Your task to perform on an android device: Search for "sony triple a" on target.com, select the first entry, and add it to the cart. Image 0: 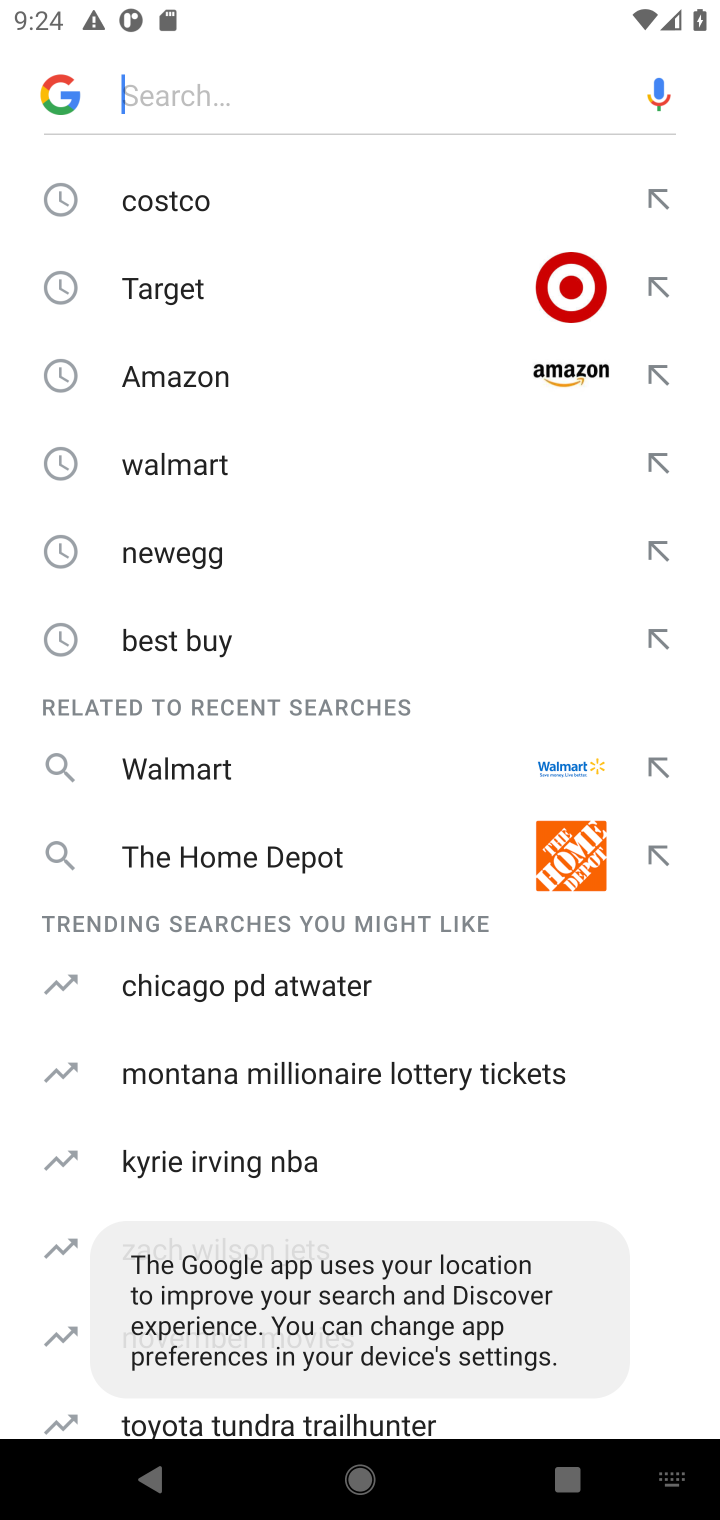
Step 0: press home button
Your task to perform on an android device: Search for "sony triple a" on target.com, select the first entry, and add it to the cart. Image 1: 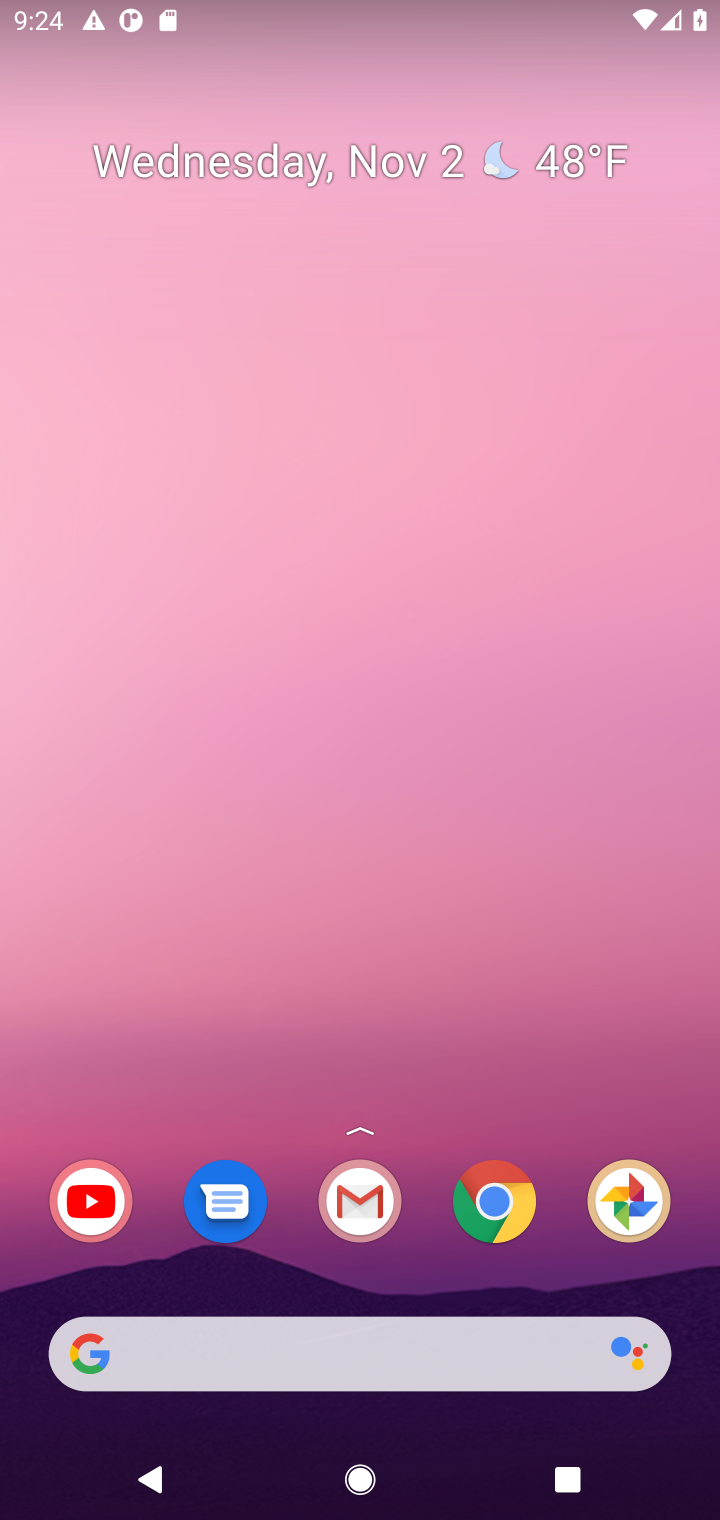
Step 1: drag from (434, 1168) to (409, 214)
Your task to perform on an android device: Search for "sony triple a" on target.com, select the first entry, and add it to the cart. Image 2: 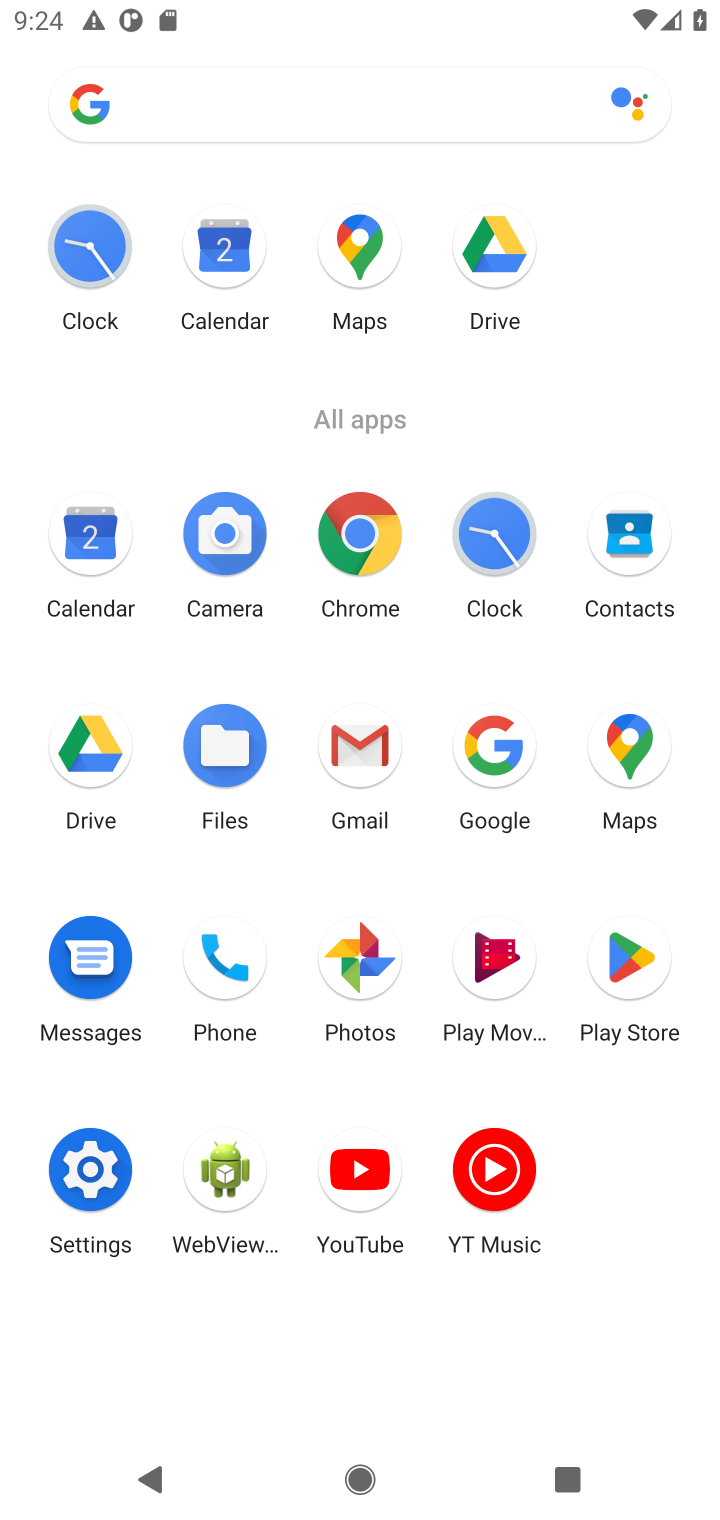
Step 2: click (377, 536)
Your task to perform on an android device: Search for "sony triple a" on target.com, select the first entry, and add it to the cart. Image 3: 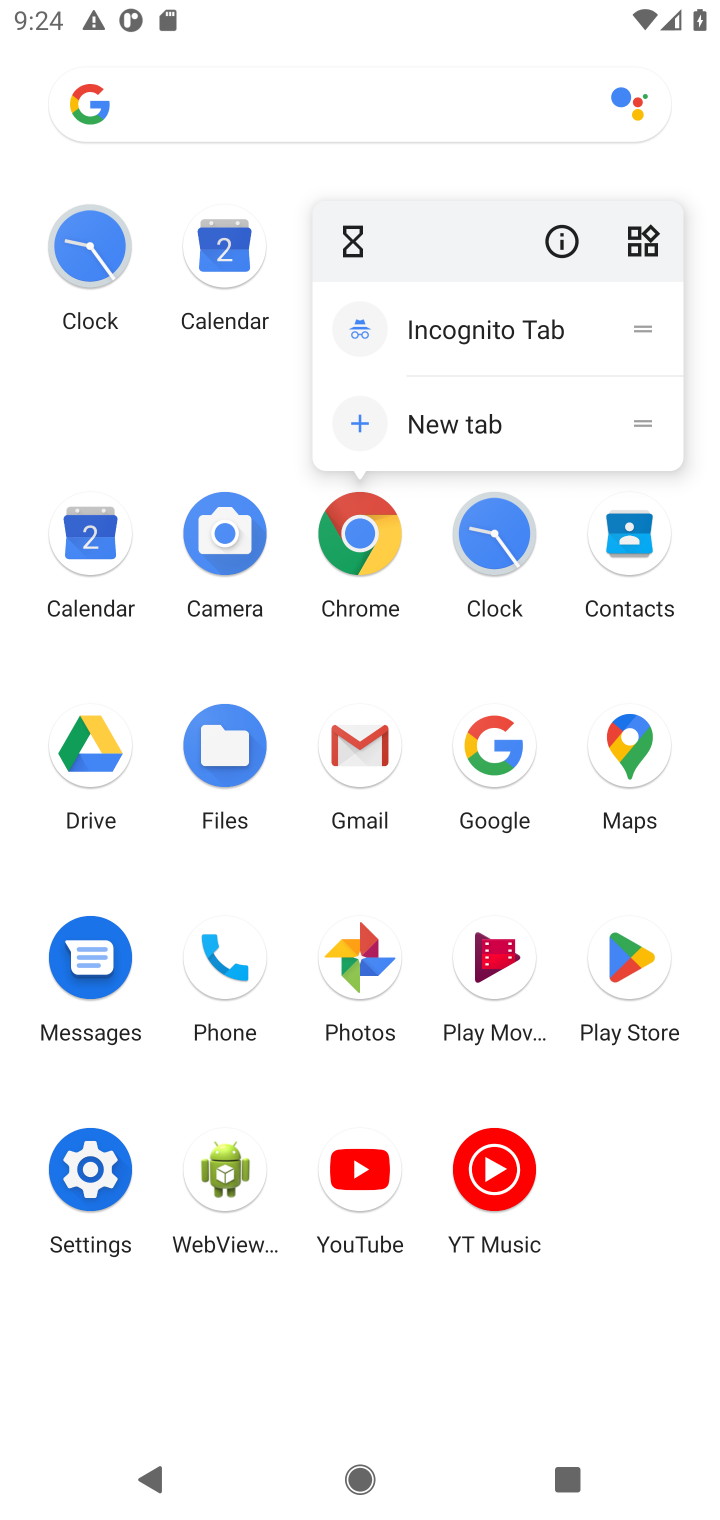
Step 3: click (362, 530)
Your task to perform on an android device: Search for "sony triple a" on target.com, select the first entry, and add it to the cart. Image 4: 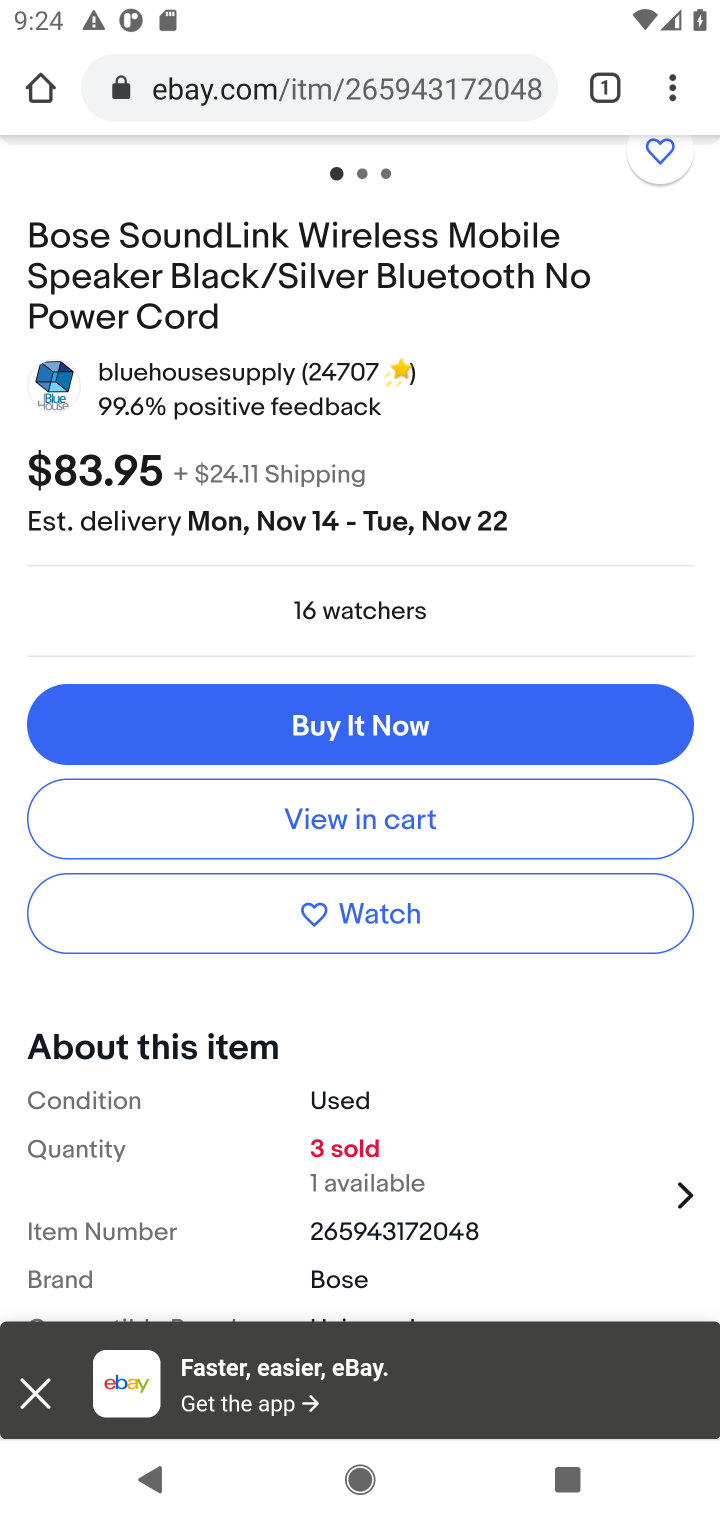
Step 4: click (451, 106)
Your task to perform on an android device: Search for "sony triple a" on target.com, select the first entry, and add it to the cart. Image 5: 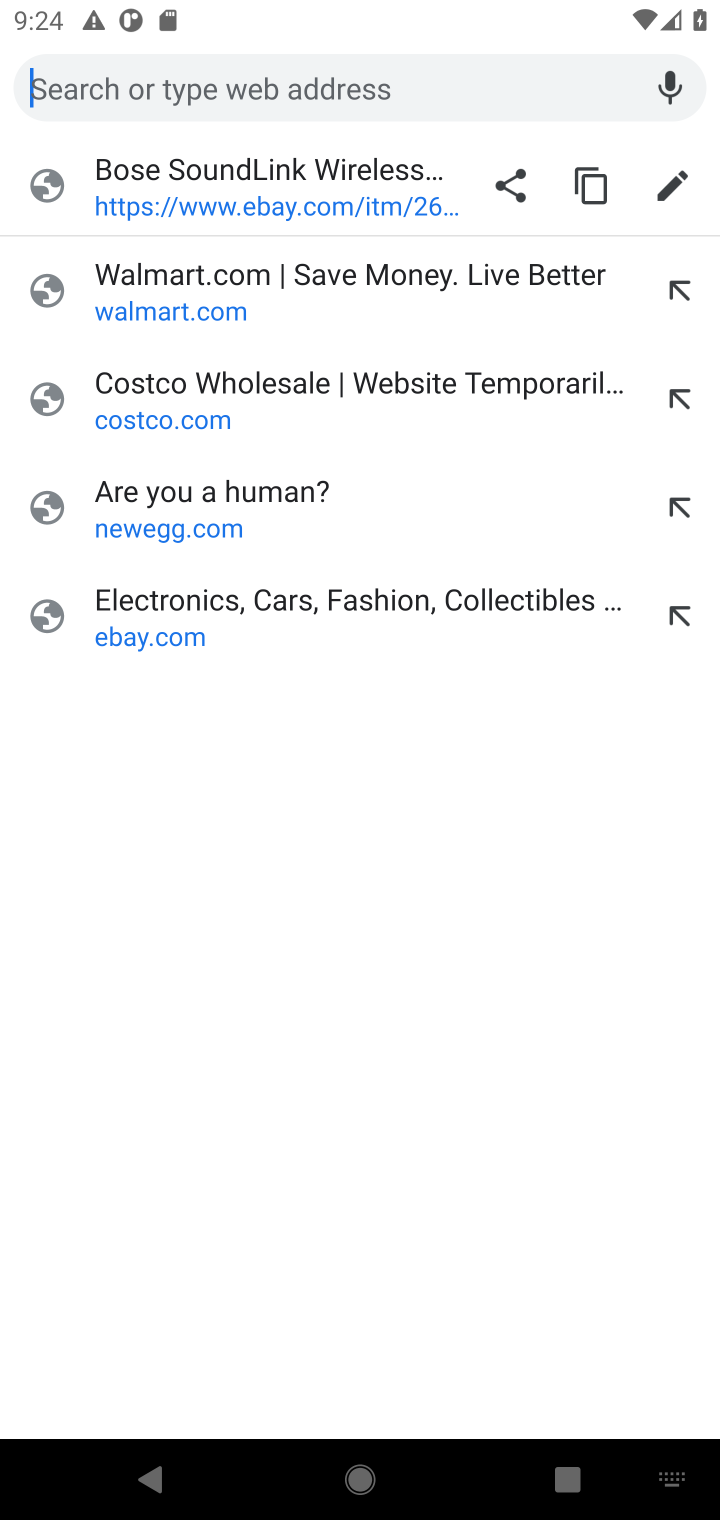
Step 5: click (382, 86)
Your task to perform on an android device: Search for "sony triple a" on target.com, select the first entry, and add it to the cart. Image 6: 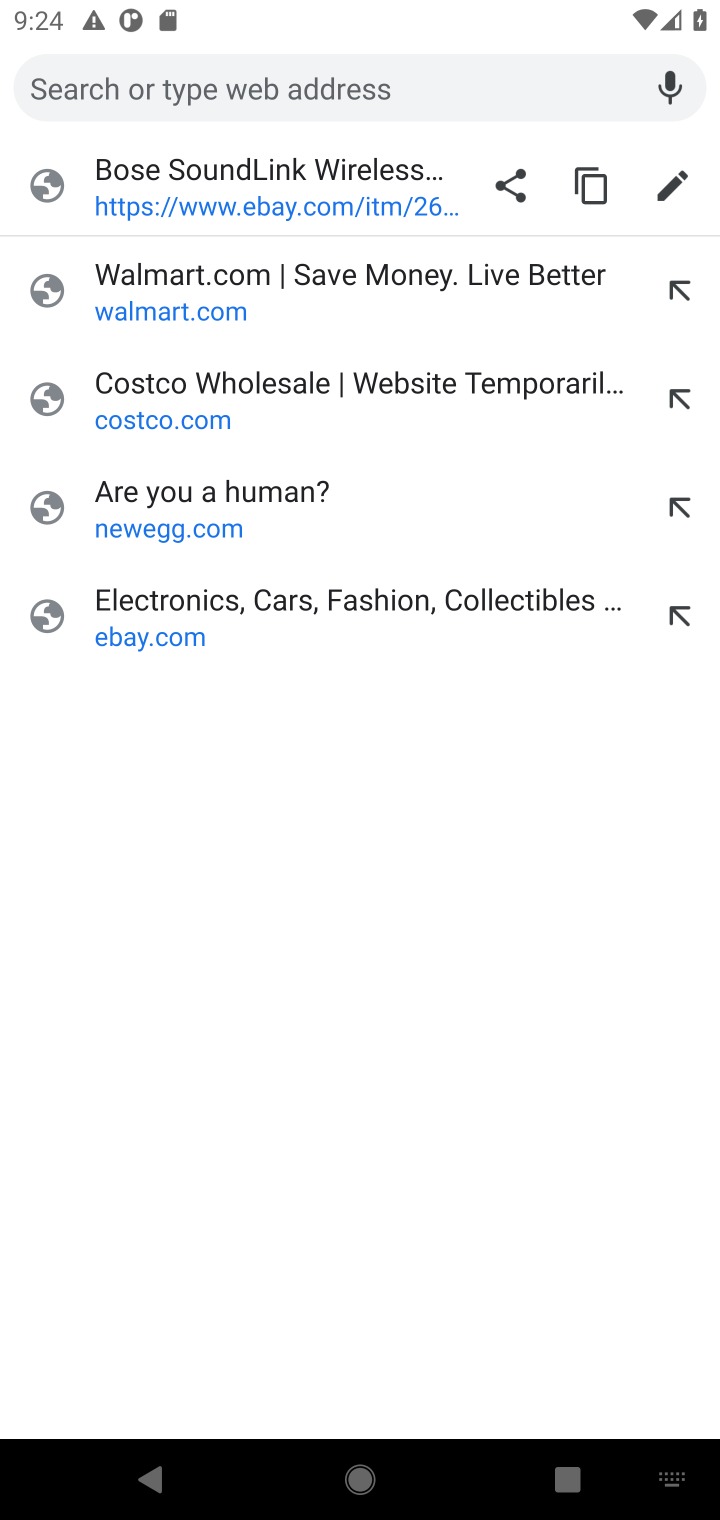
Step 6: type "target.com"
Your task to perform on an android device: Search for "sony triple a" on target.com, select the first entry, and add it to the cart. Image 7: 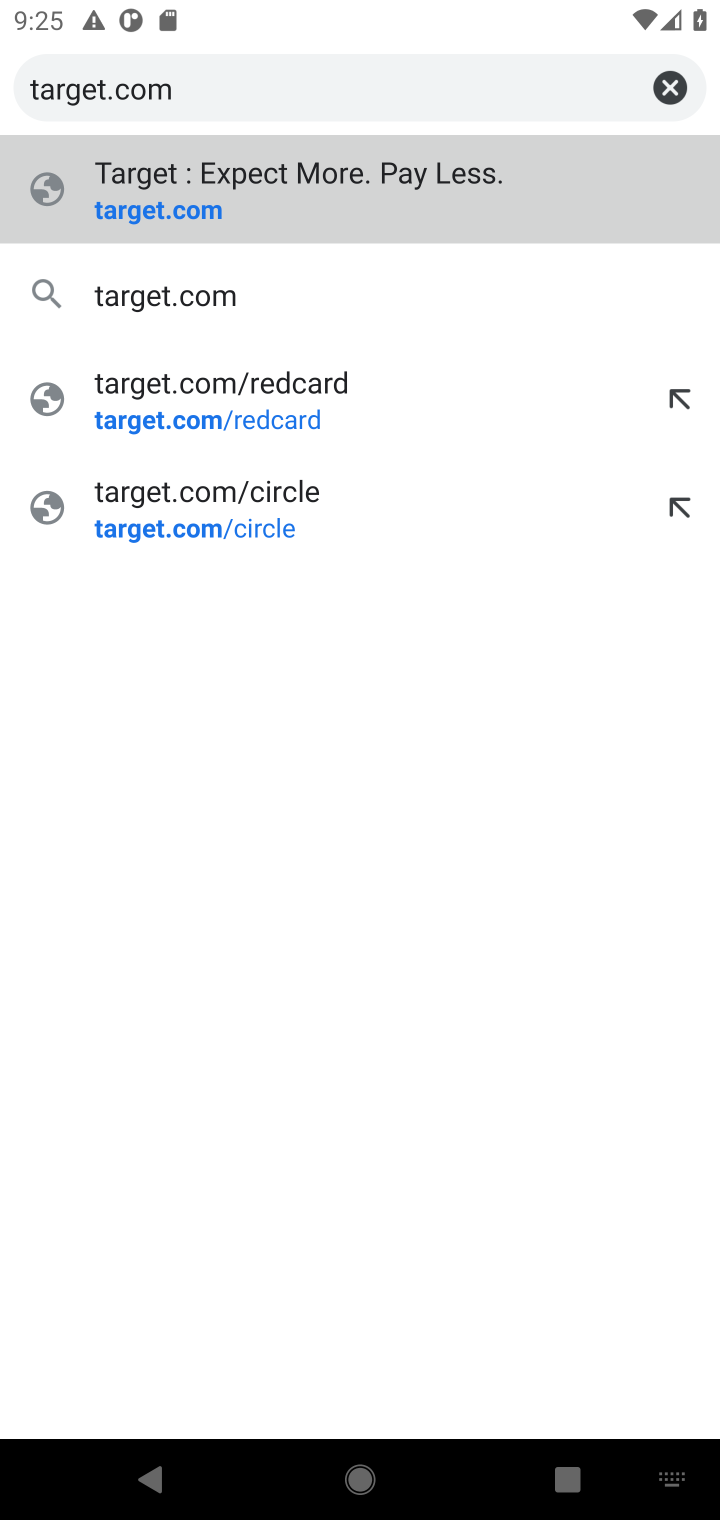
Step 7: press enter
Your task to perform on an android device: Search for "sony triple a" on target.com, select the first entry, and add it to the cart. Image 8: 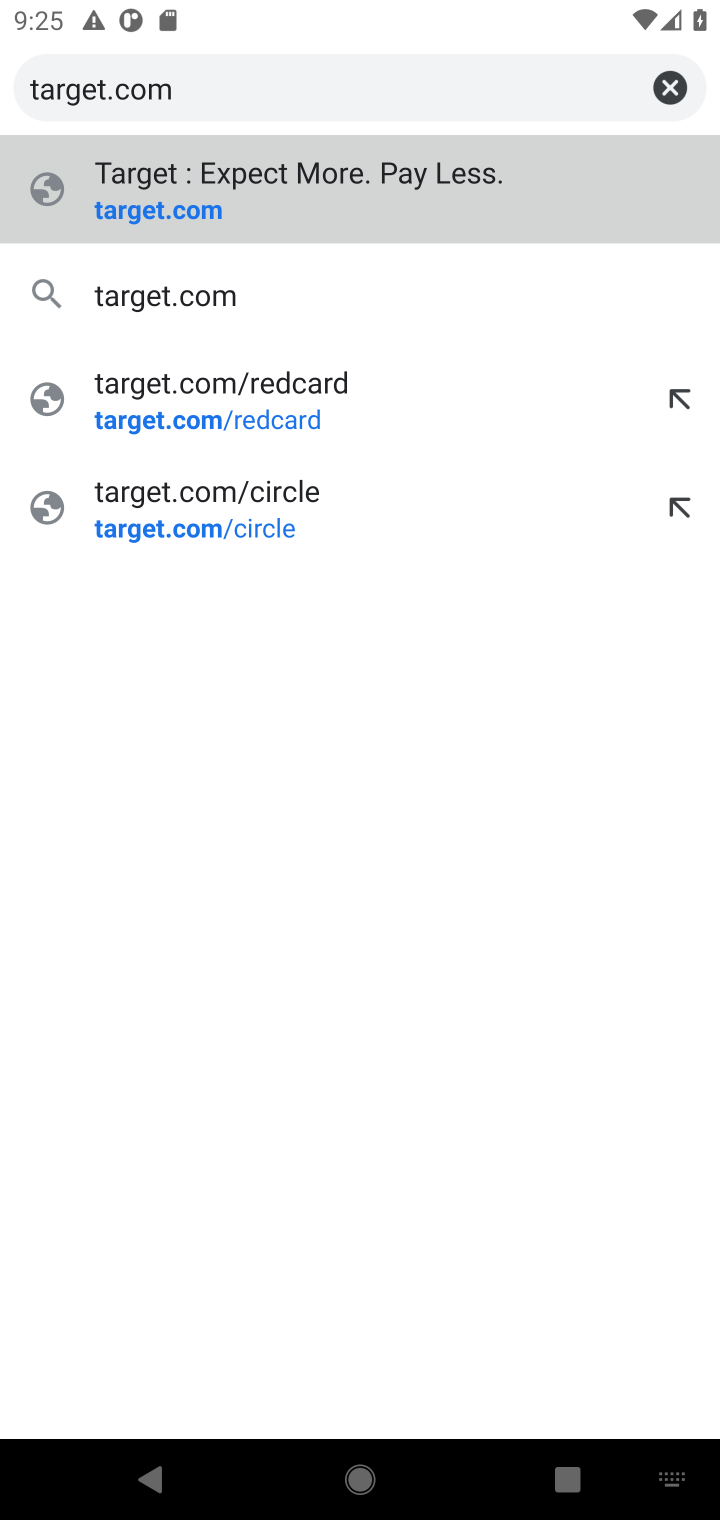
Step 8: drag from (382, 86) to (119, 380)
Your task to perform on an android device: Search for "sony triple a" on target.com, select the first entry, and add it to the cart. Image 9: 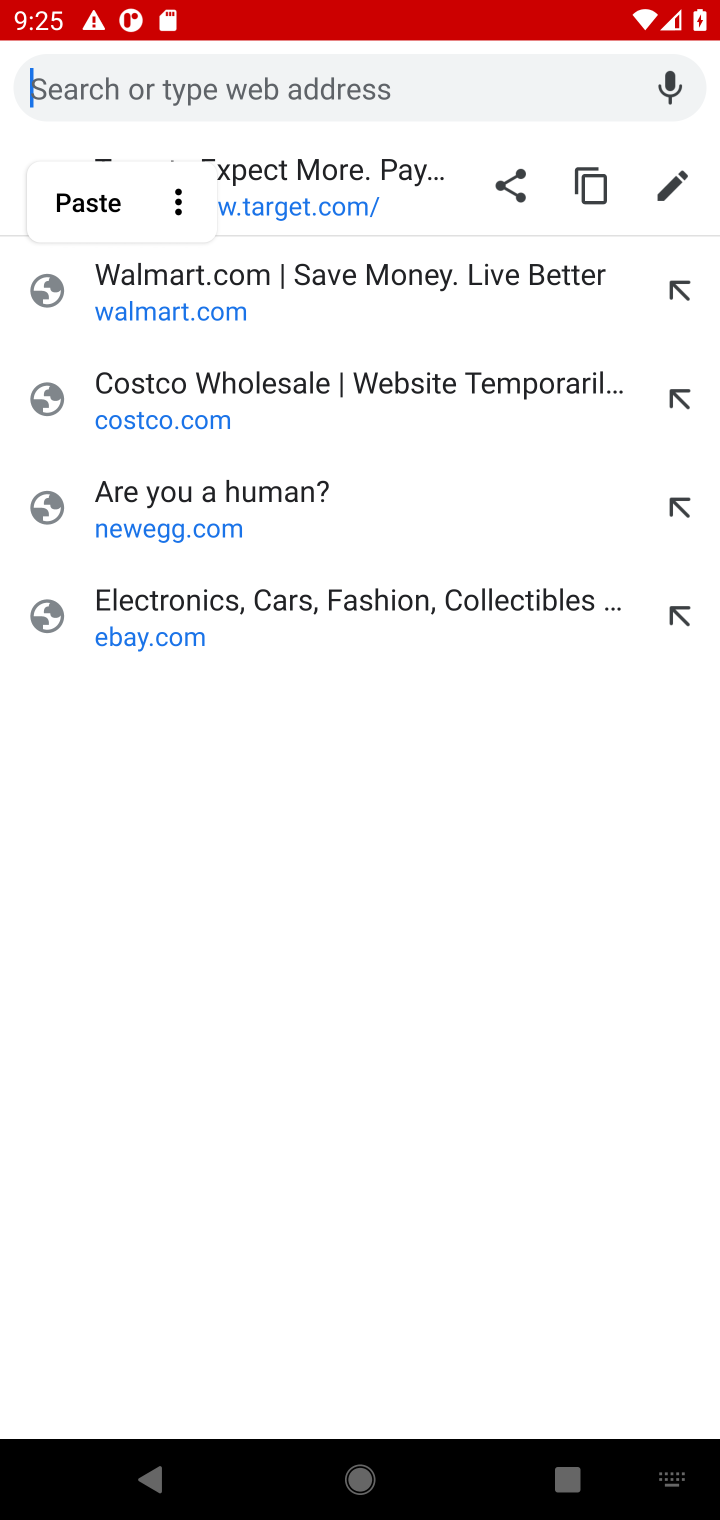
Step 9: click (292, 88)
Your task to perform on an android device: Search for "sony triple a" on target.com, select the first entry, and add it to the cart. Image 10: 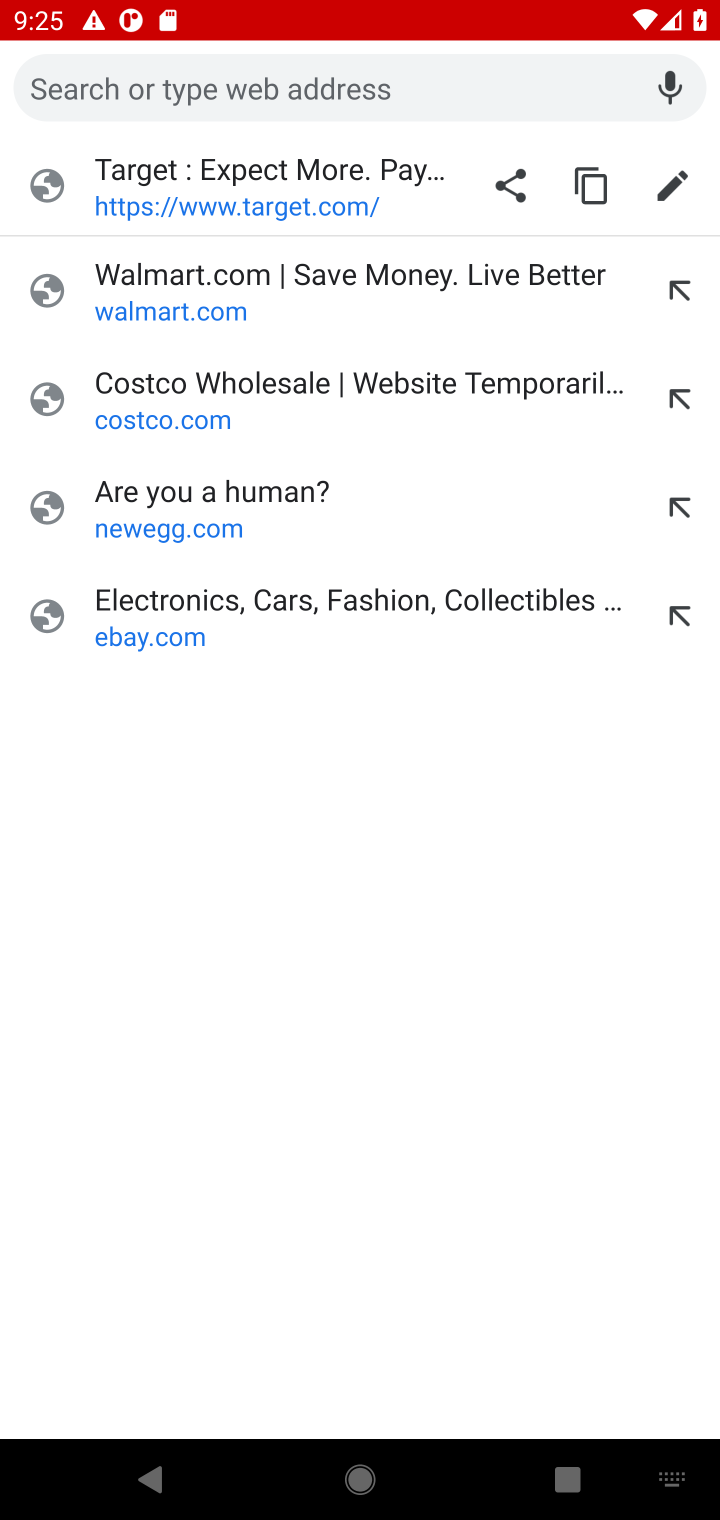
Step 10: type "target.com"
Your task to perform on an android device: Search for "sony triple a" on target.com, select the first entry, and add it to the cart. Image 11: 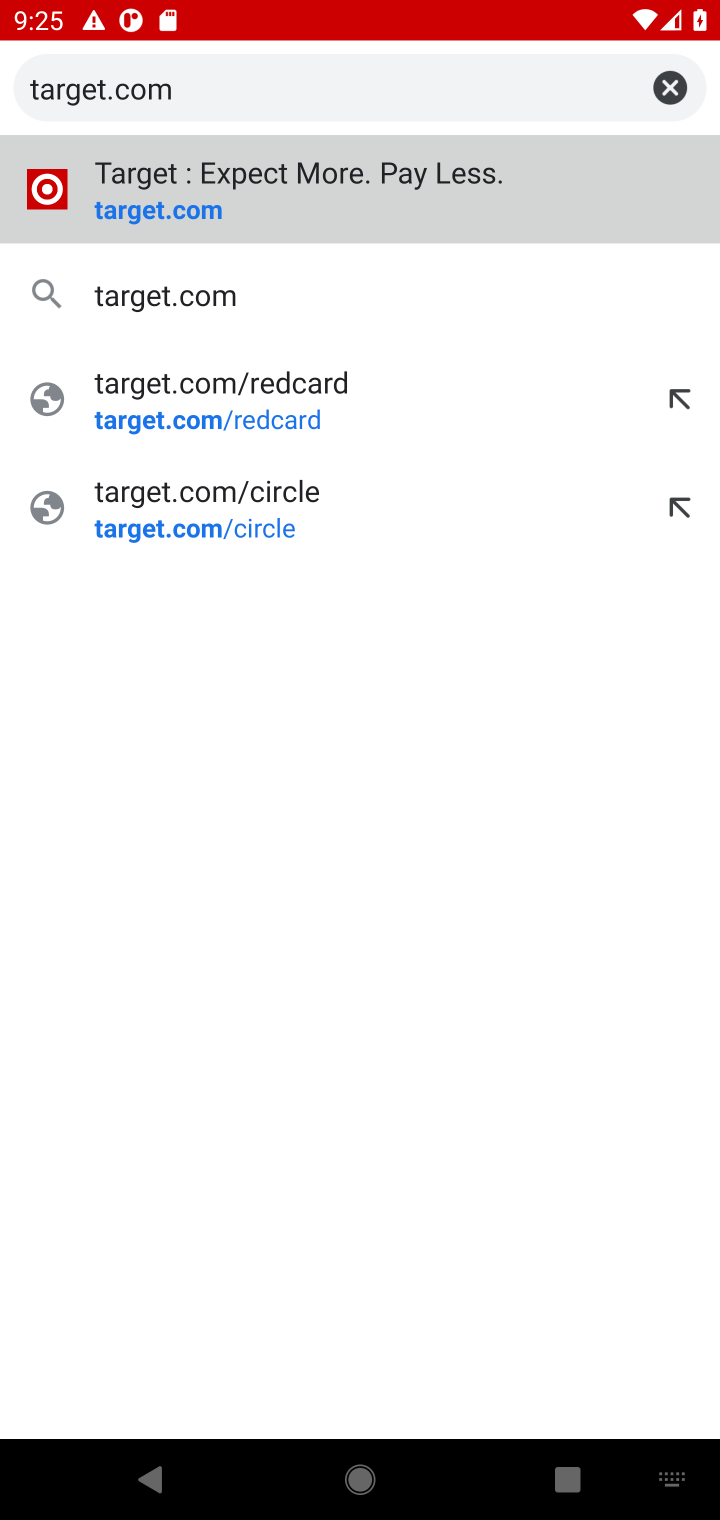
Step 11: press enter
Your task to perform on an android device: Search for "sony triple a" on target.com, select the first entry, and add it to the cart. Image 12: 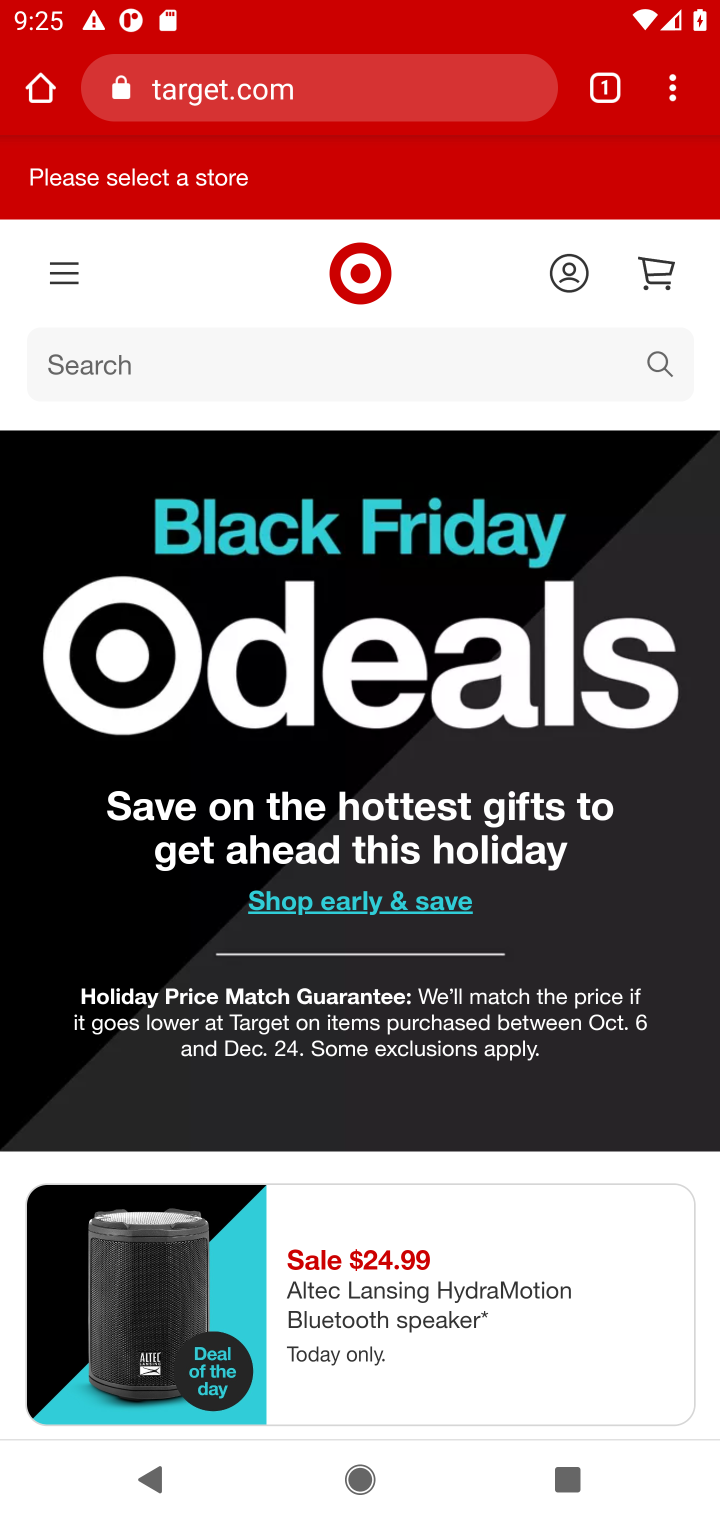
Step 12: click (483, 370)
Your task to perform on an android device: Search for "sony triple a" on target.com, select the first entry, and add it to the cart. Image 13: 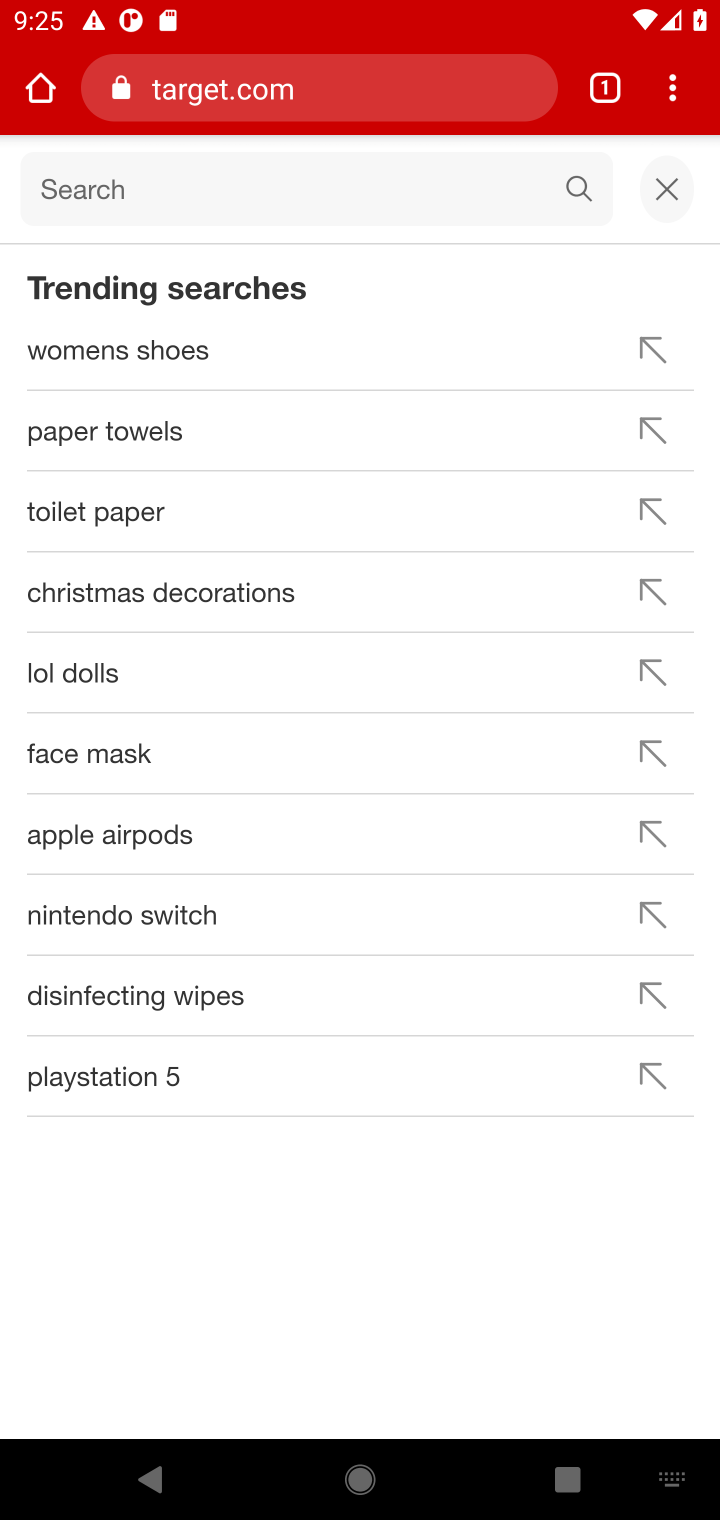
Step 13: type "sony triple a"
Your task to perform on an android device: Search for "sony triple a" on target.com, select the first entry, and add it to the cart. Image 14: 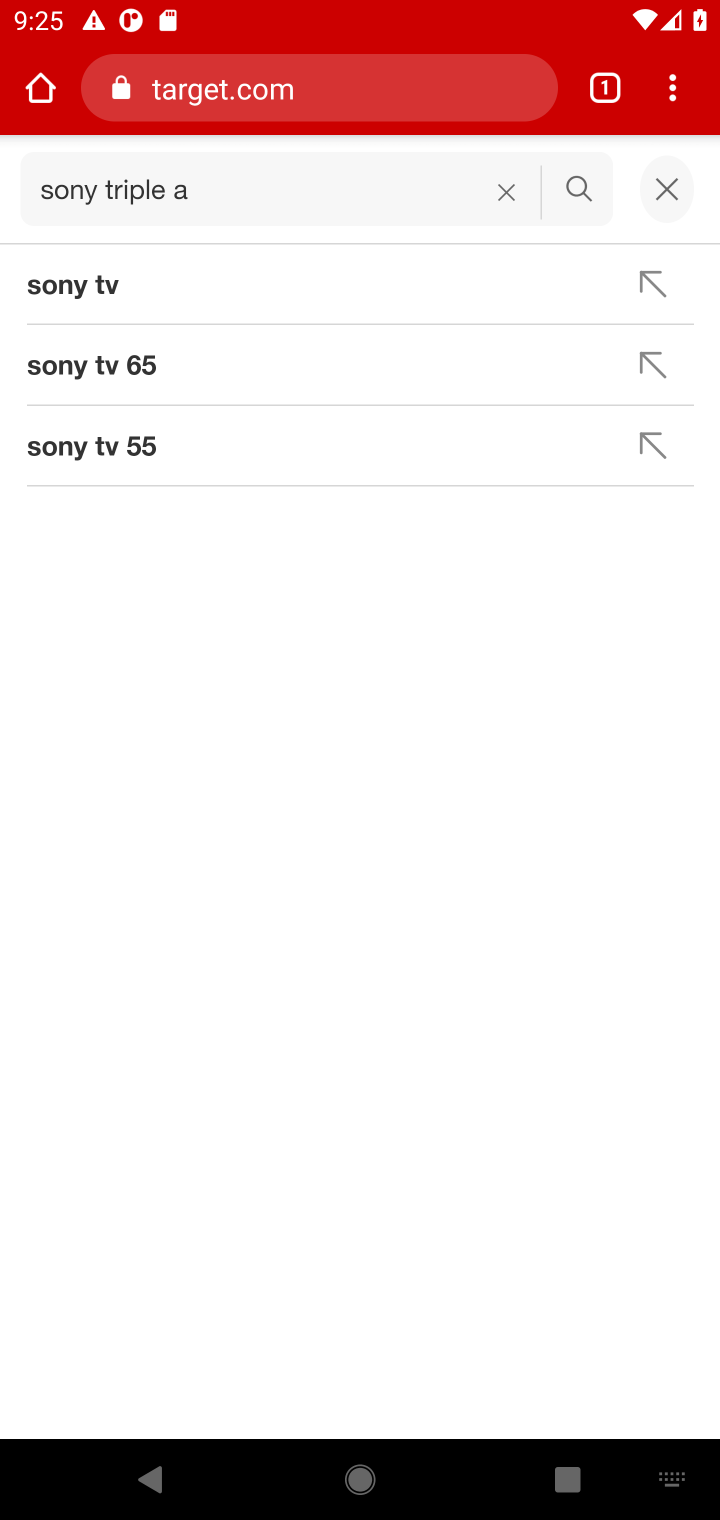
Step 14: press enter
Your task to perform on an android device: Search for "sony triple a" on target.com, select the first entry, and add it to the cart. Image 15: 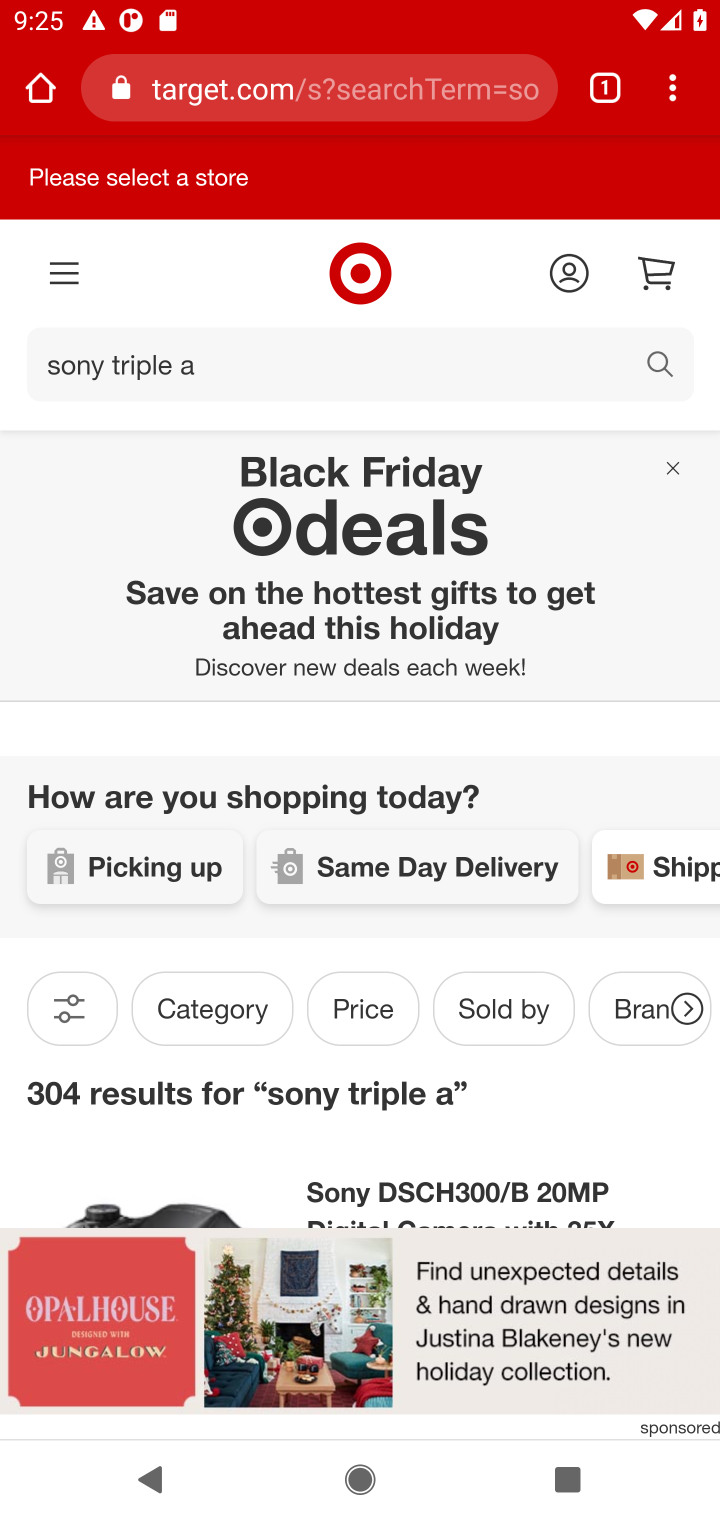
Step 15: drag from (471, 1188) to (459, 393)
Your task to perform on an android device: Search for "sony triple a" on target.com, select the first entry, and add it to the cart. Image 16: 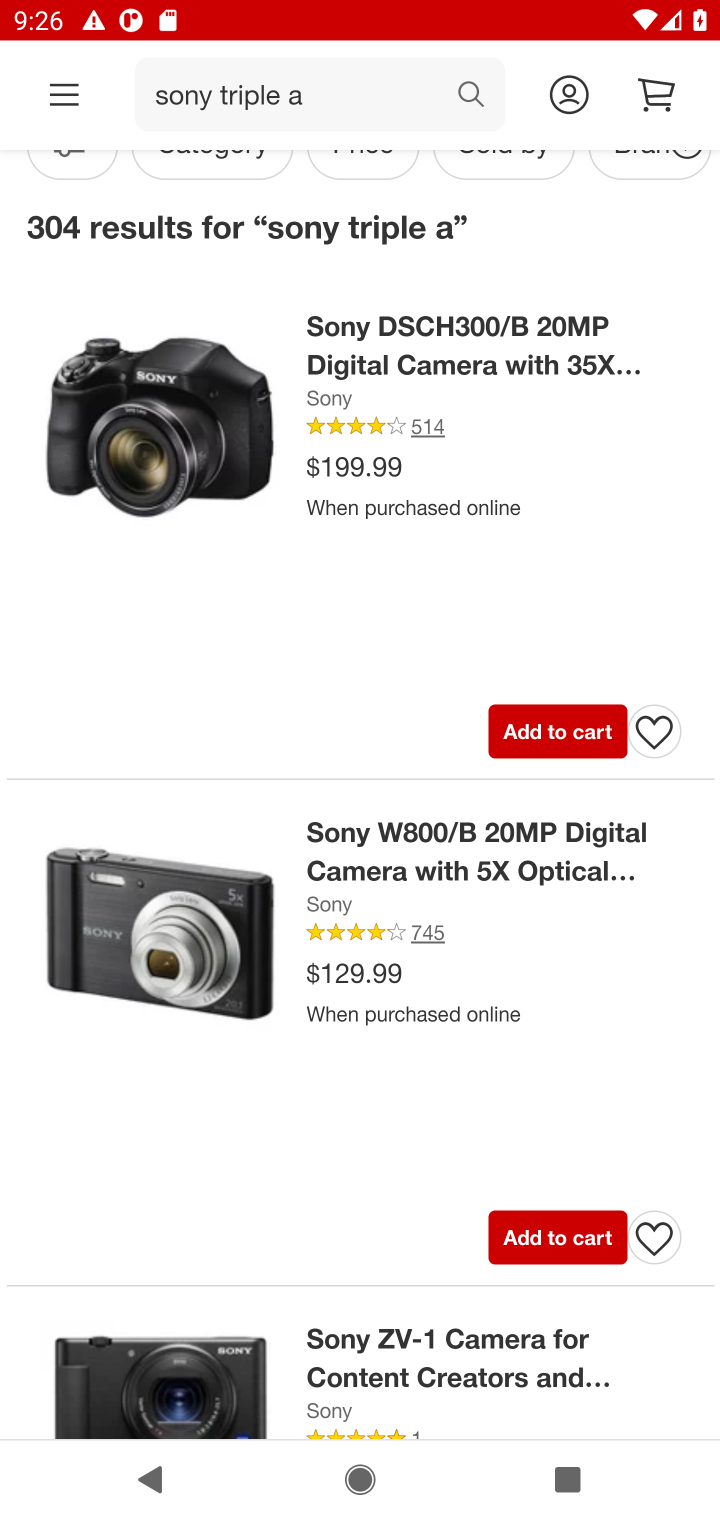
Step 16: click (211, 436)
Your task to perform on an android device: Search for "sony triple a" on target.com, select the first entry, and add it to the cart. Image 17: 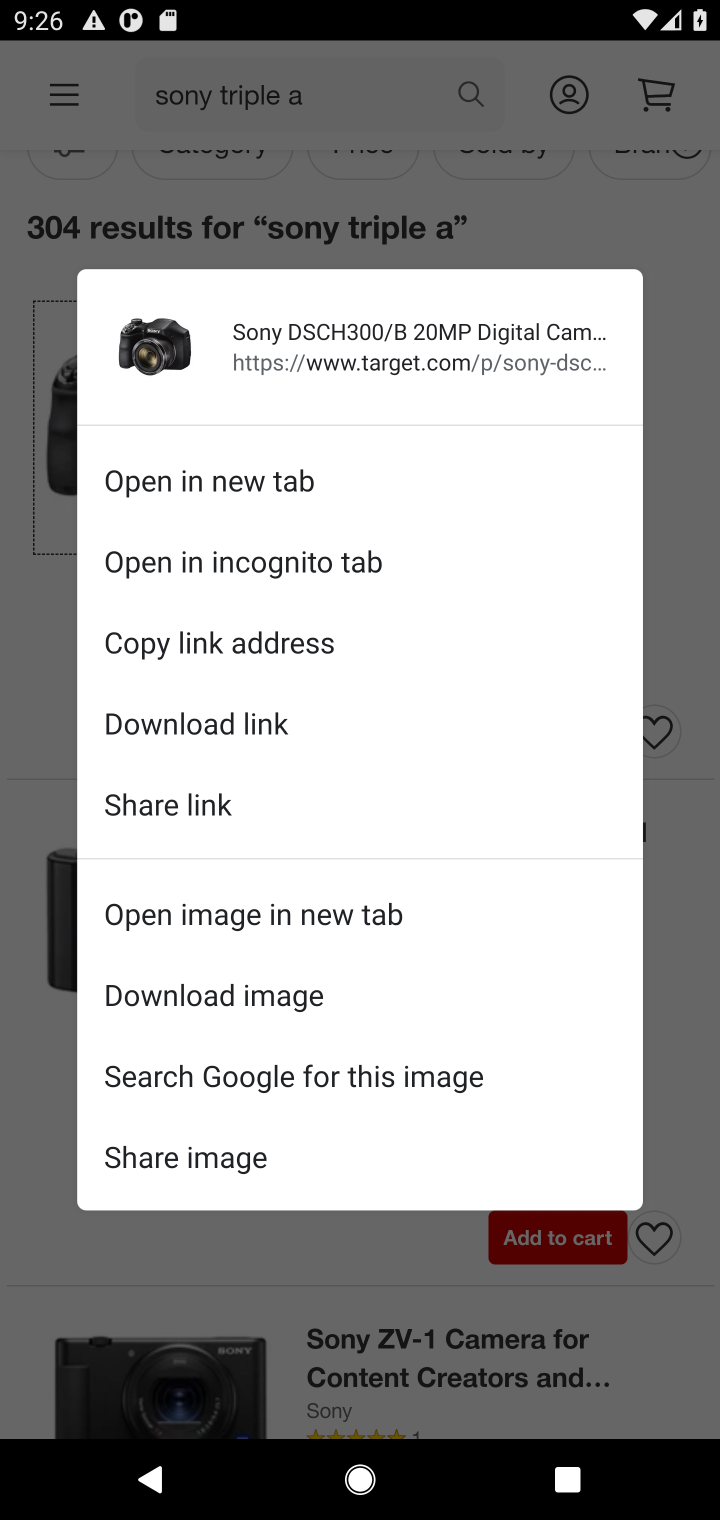
Step 17: click (690, 510)
Your task to perform on an android device: Search for "sony triple a" on target.com, select the first entry, and add it to the cart. Image 18: 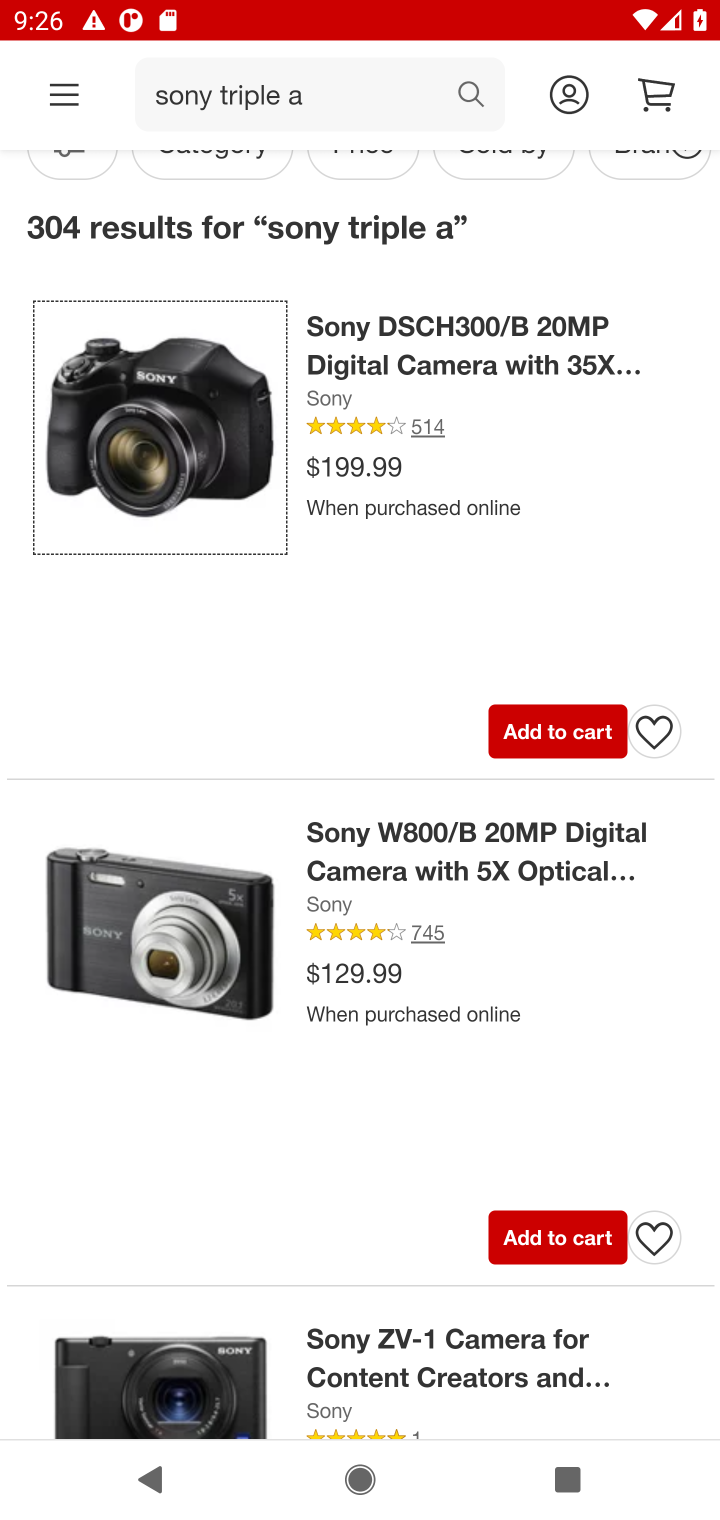
Step 18: click (440, 380)
Your task to perform on an android device: Search for "sony triple a" on target.com, select the first entry, and add it to the cart. Image 19: 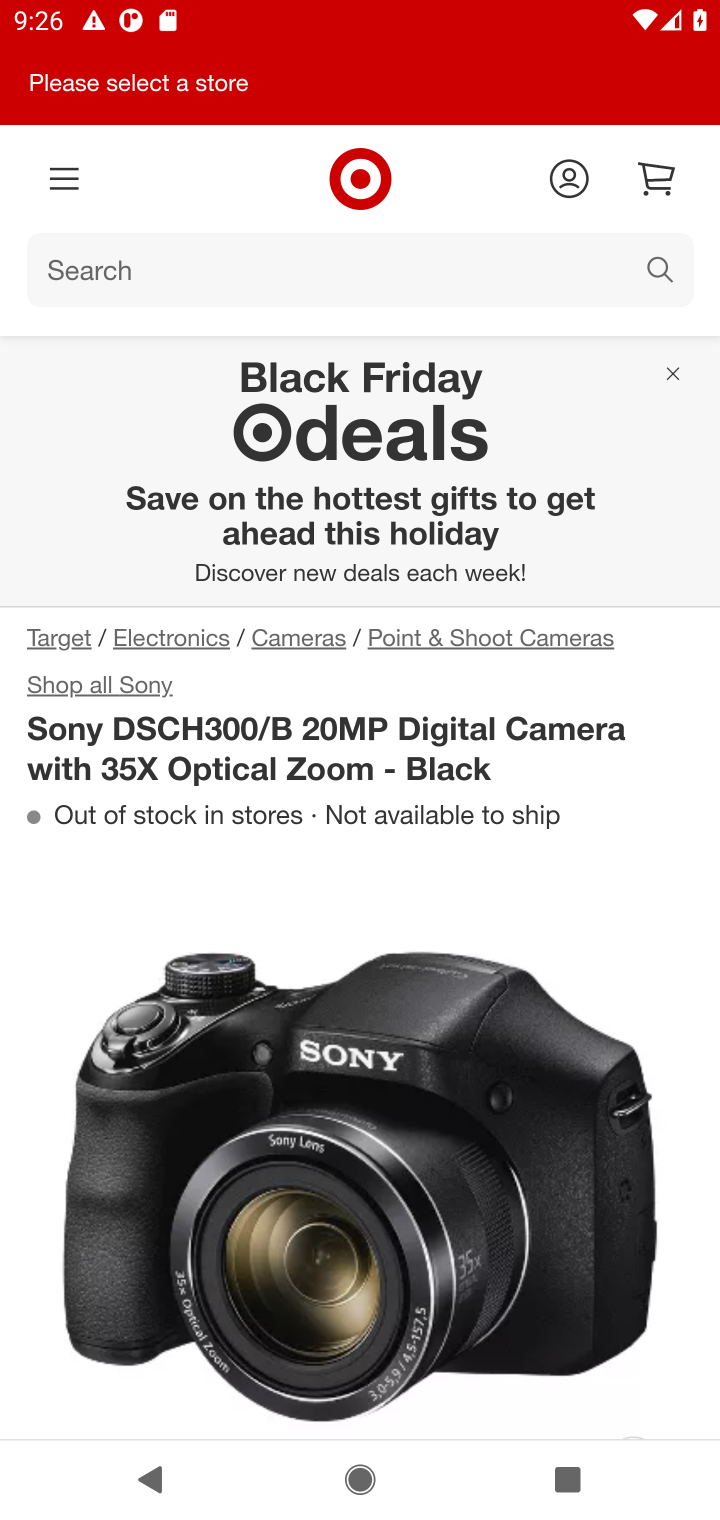
Step 19: task complete